Your task to perform on an android device: Go to Google maps Image 0: 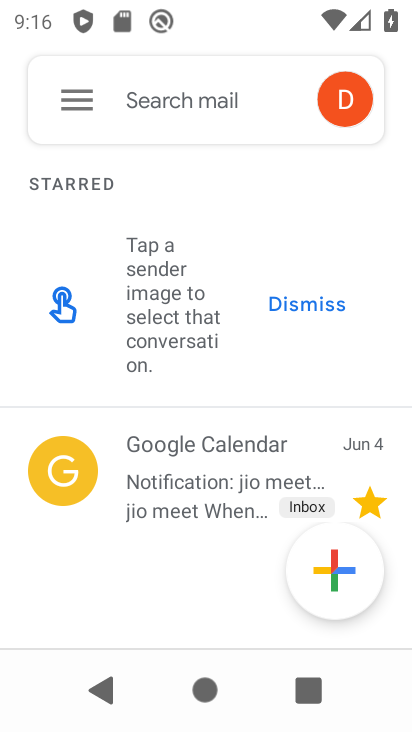
Step 0: press home button
Your task to perform on an android device: Go to Google maps Image 1: 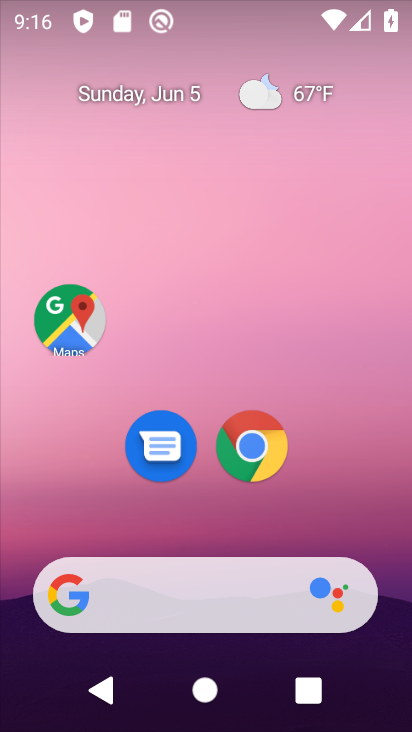
Step 1: drag from (207, 446) to (207, 106)
Your task to perform on an android device: Go to Google maps Image 2: 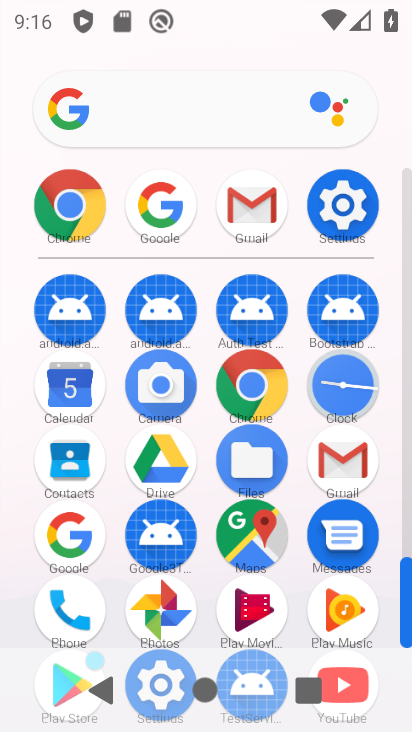
Step 2: click (239, 535)
Your task to perform on an android device: Go to Google maps Image 3: 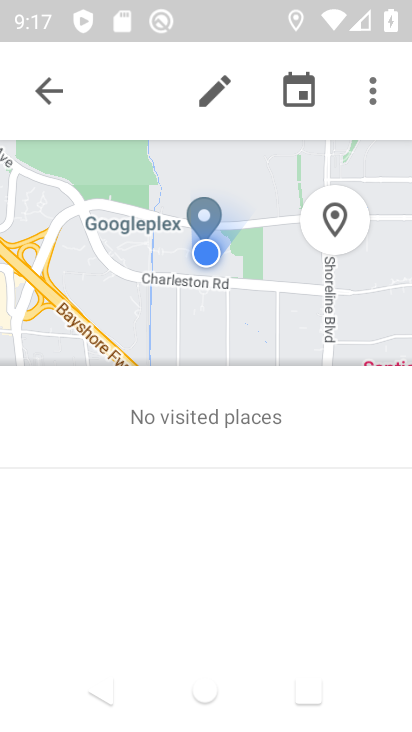
Step 3: task complete